Your task to perform on an android device: toggle data saver in the chrome app Image 0: 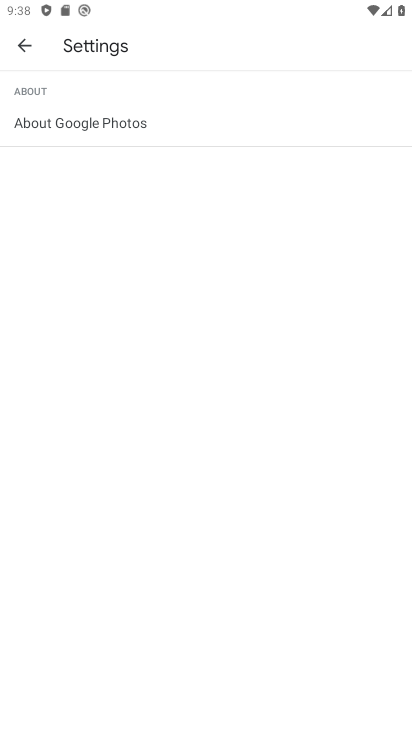
Step 0: press home button
Your task to perform on an android device: toggle data saver in the chrome app Image 1: 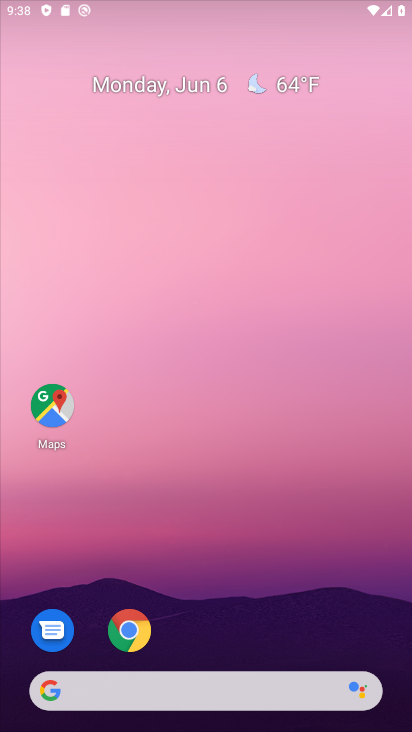
Step 1: click (137, 633)
Your task to perform on an android device: toggle data saver in the chrome app Image 2: 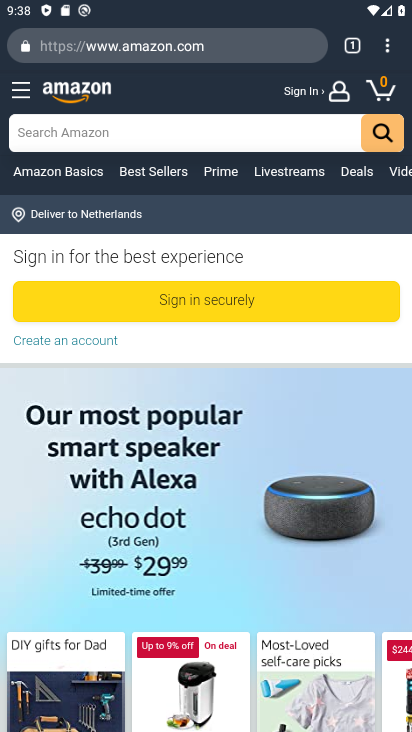
Step 2: click (386, 57)
Your task to perform on an android device: toggle data saver in the chrome app Image 3: 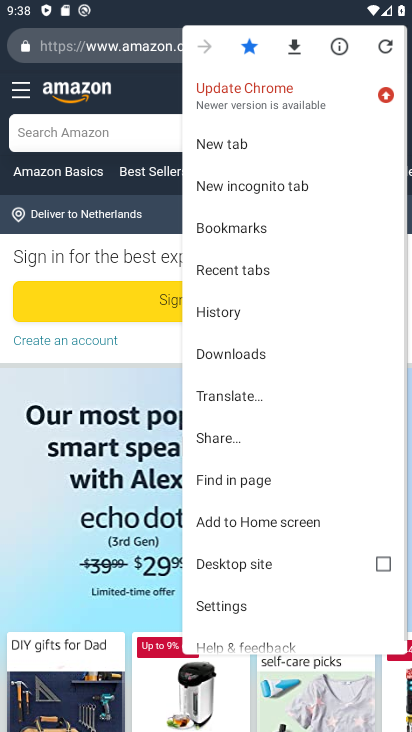
Step 3: click (227, 604)
Your task to perform on an android device: toggle data saver in the chrome app Image 4: 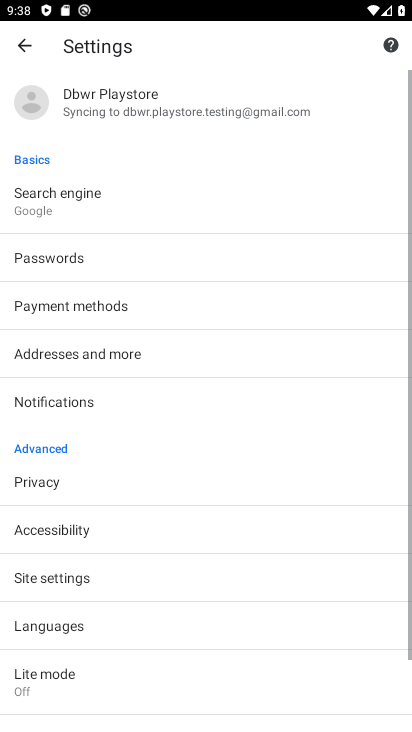
Step 4: click (97, 690)
Your task to perform on an android device: toggle data saver in the chrome app Image 5: 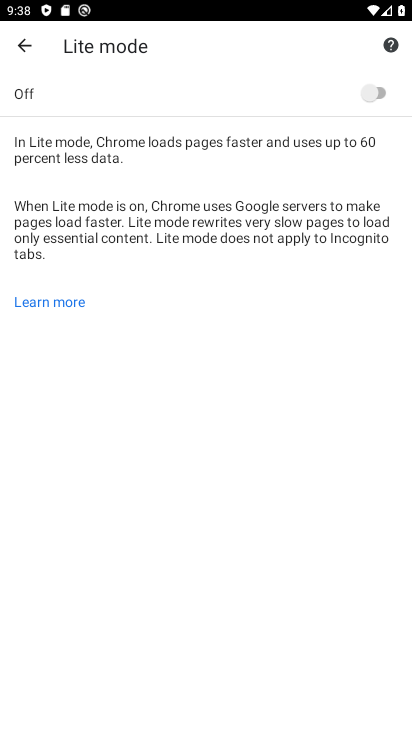
Step 5: click (374, 90)
Your task to perform on an android device: toggle data saver in the chrome app Image 6: 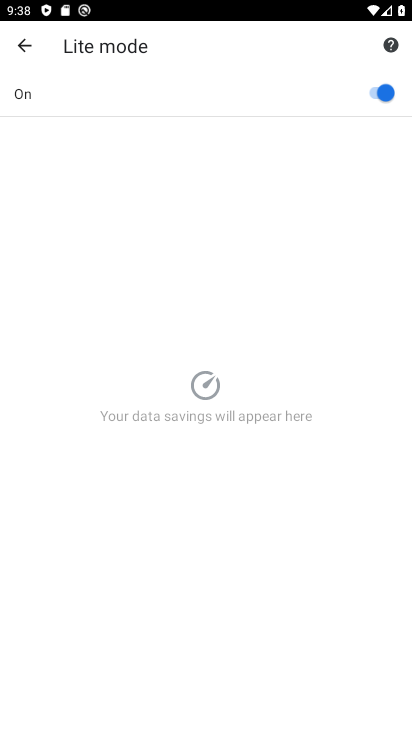
Step 6: task complete